Your task to perform on an android device: turn on the 12-hour format for clock Image 0: 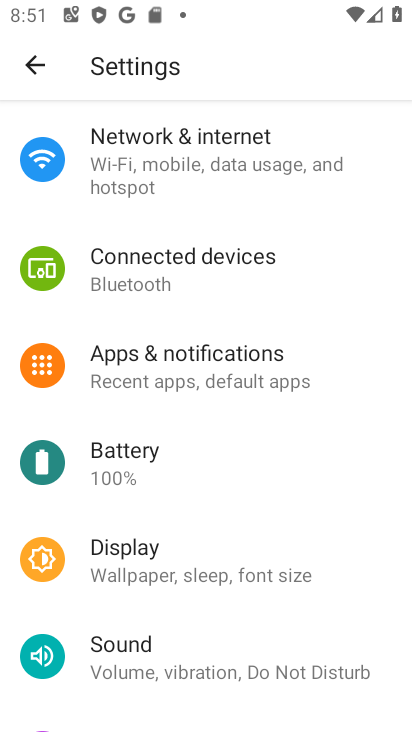
Step 0: press home button
Your task to perform on an android device: turn on the 12-hour format for clock Image 1: 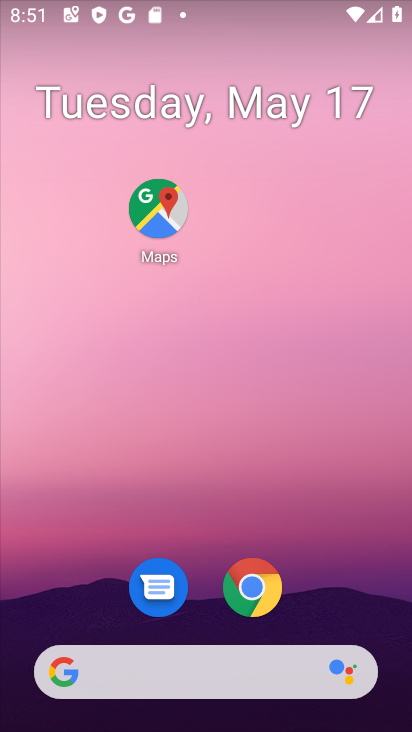
Step 1: drag from (11, 630) to (250, 210)
Your task to perform on an android device: turn on the 12-hour format for clock Image 2: 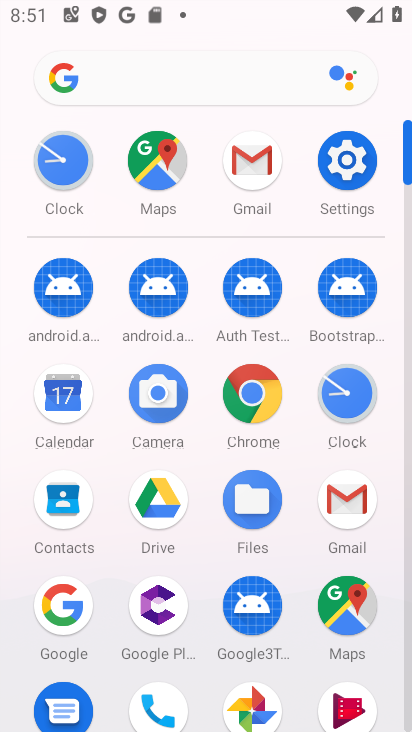
Step 2: click (341, 402)
Your task to perform on an android device: turn on the 12-hour format for clock Image 3: 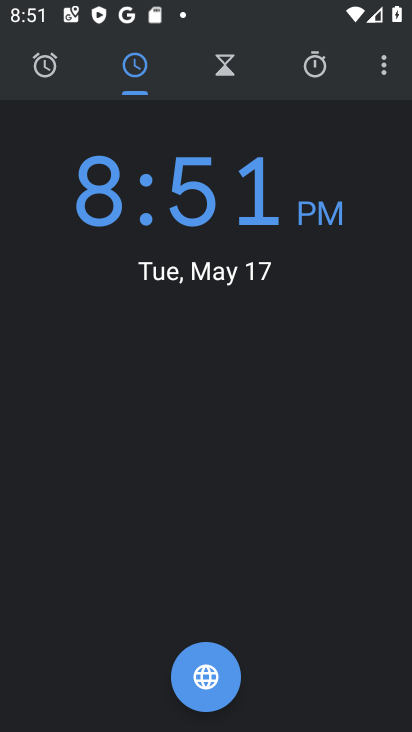
Step 3: click (385, 64)
Your task to perform on an android device: turn on the 12-hour format for clock Image 4: 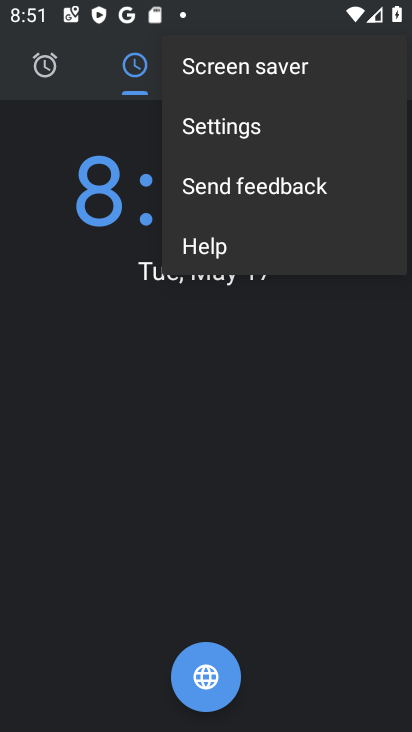
Step 4: click (240, 131)
Your task to perform on an android device: turn on the 12-hour format for clock Image 5: 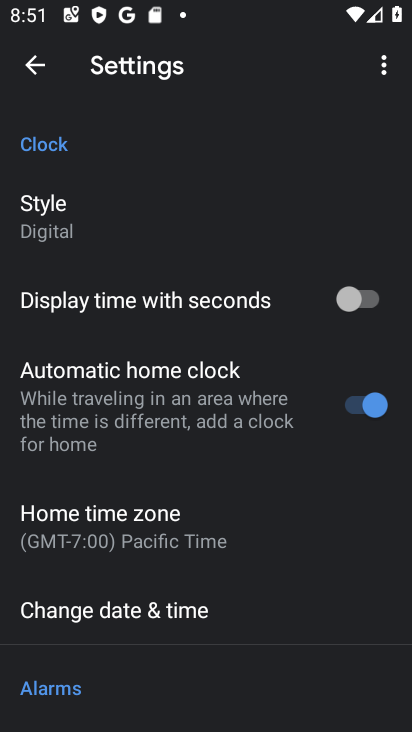
Step 5: task complete